Your task to perform on an android device: Go to location settings Image 0: 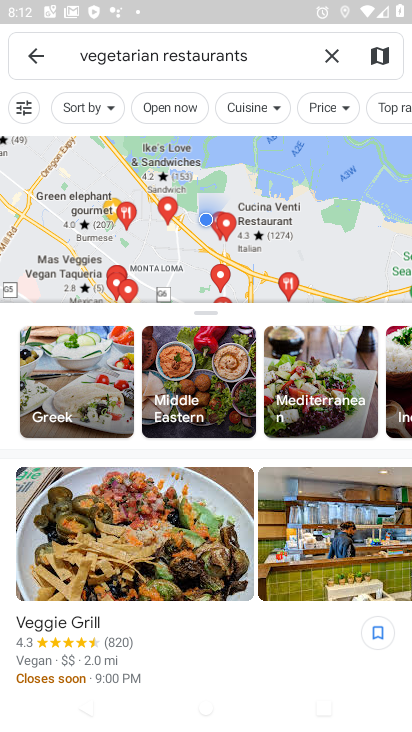
Step 0: press back button
Your task to perform on an android device: Go to location settings Image 1: 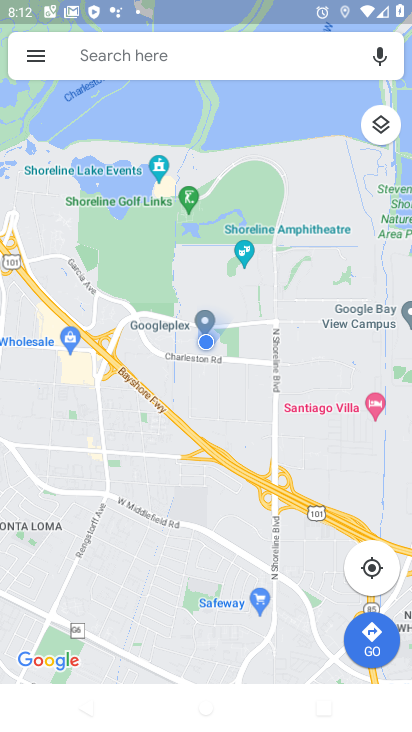
Step 1: press back button
Your task to perform on an android device: Go to location settings Image 2: 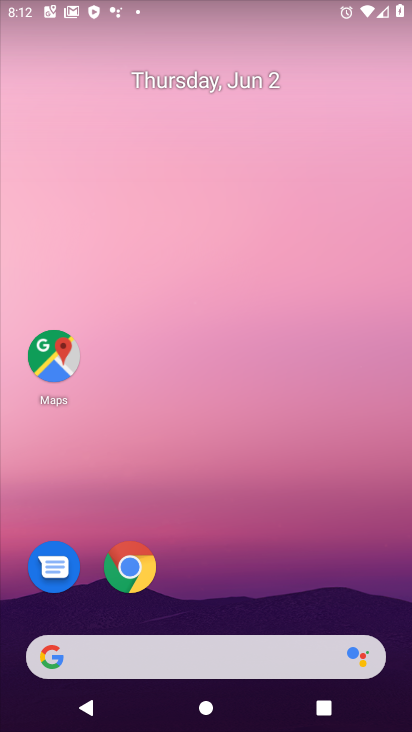
Step 2: drag from (237, 547) to (258, 48)
Your task to perform on an android device: Go to location settings Image 3: 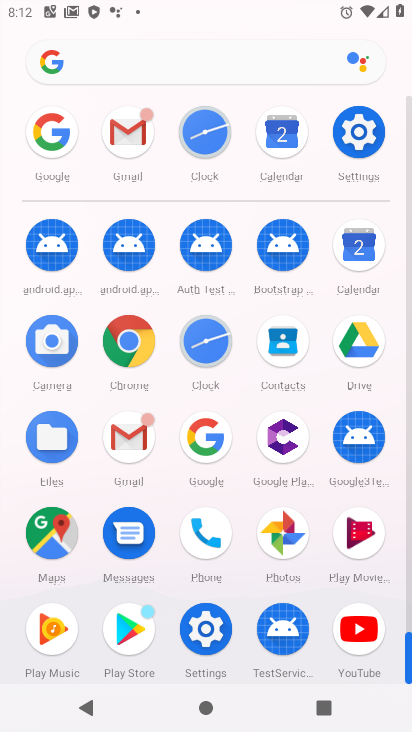
Step 3: click (359, 133)
Your task to perform on an android device: Go to location settings Image 4: 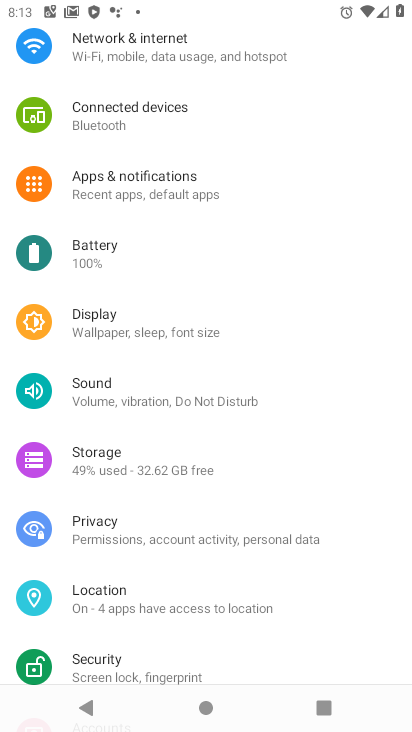
Step 4: click (161, 600)
Your task to perform on an android device: Go to location settings Image 5: 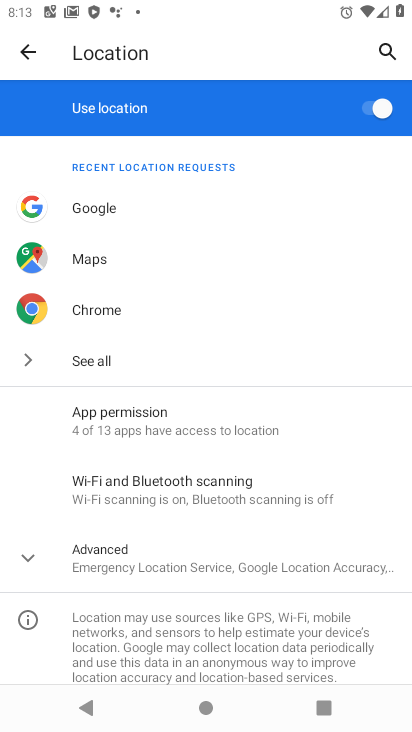
Step 5: task complete